Your task to perform on an android device: turn off airplane mode Image 0: 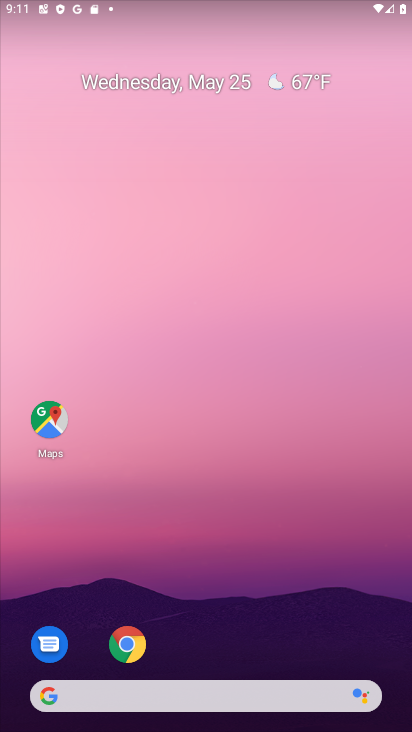
Step 0: drag from (251, 7) to (249, 468)
Your task to perform on an android device: turn off airplane mode Image 1: 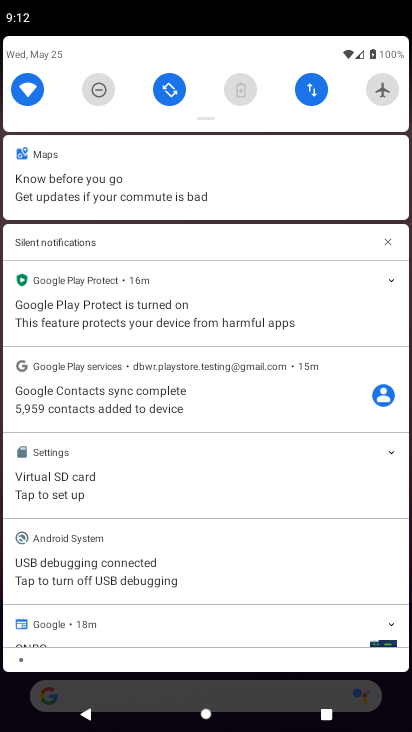
Step 1: task complete